Your task to perform on an android device: Open Google Chrome and open the bookmarks view Image 0: 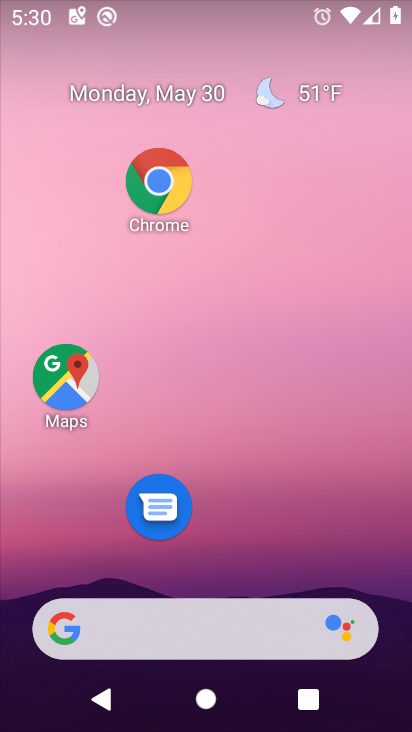
Step 0: click (166, 179)
Your task to perform on an android device: Open Google Chrome and open the bookmarks view Image 1: 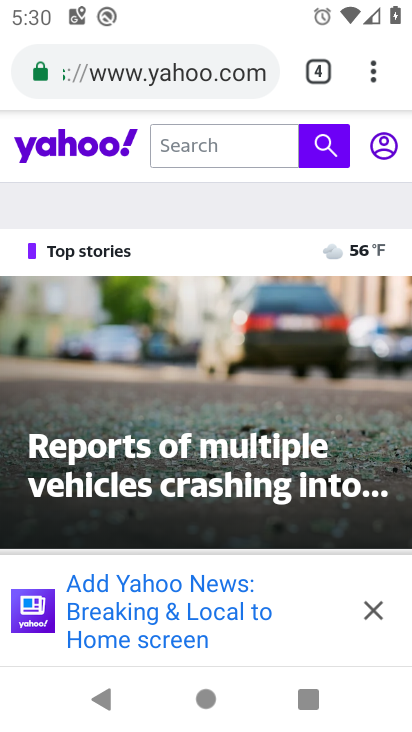
Step 1: task complete